Your task to perform on an android device: turn on location history Image 0: 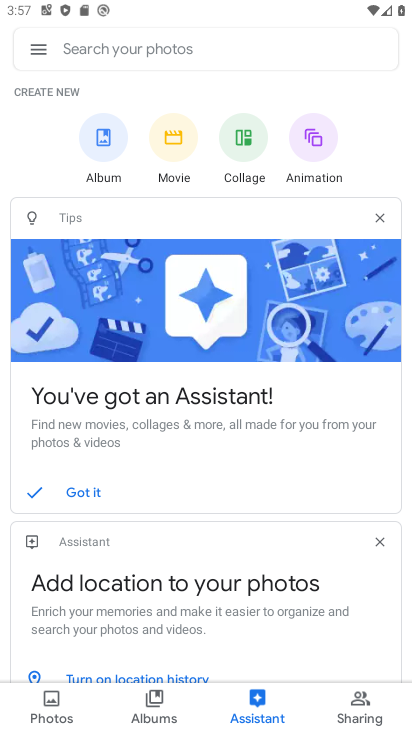
Step 0: press home button
Your task to perform on an android device: turn on location history Image 1: 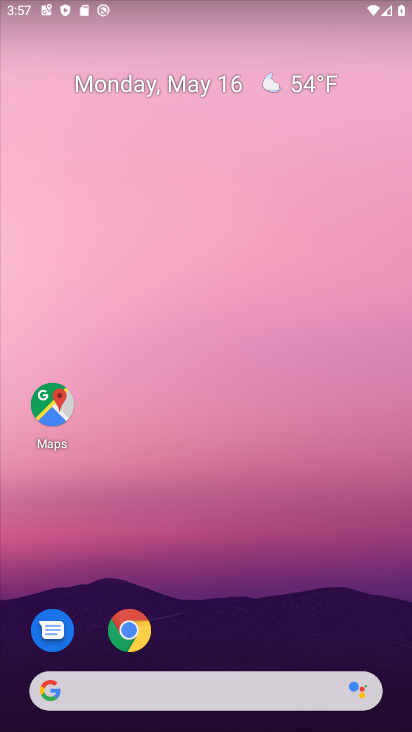
Step 1: click (56, 414)
Your task to perform on an android device: turn on location history Image 2: 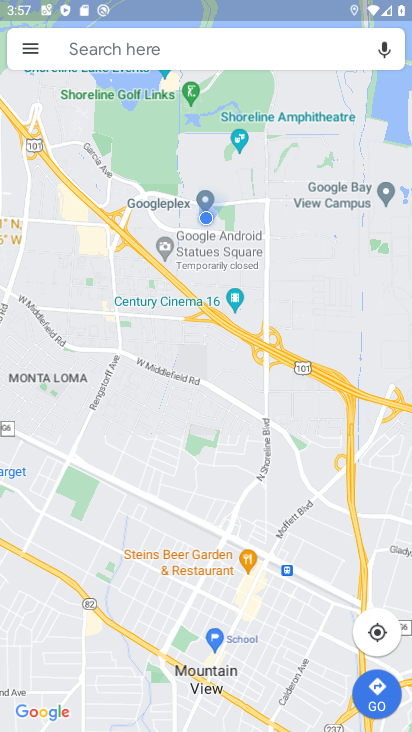
Step 2: click (34, 49)
Your task to perform on an android device: turn on location history Image 3: 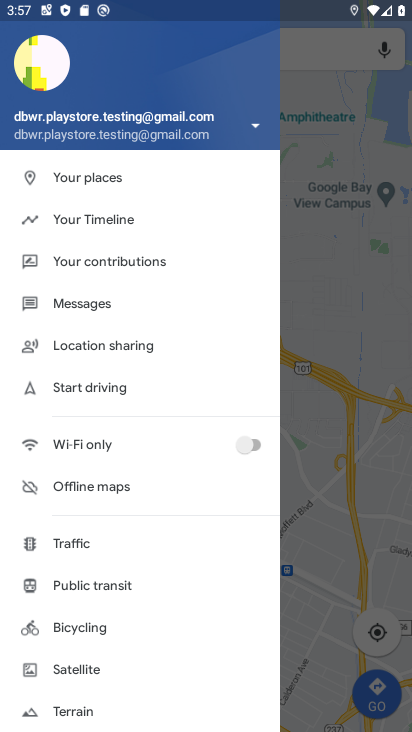
Step 3: click (128, 228)
Your task to perform on an android device: turn on location history Image 4: 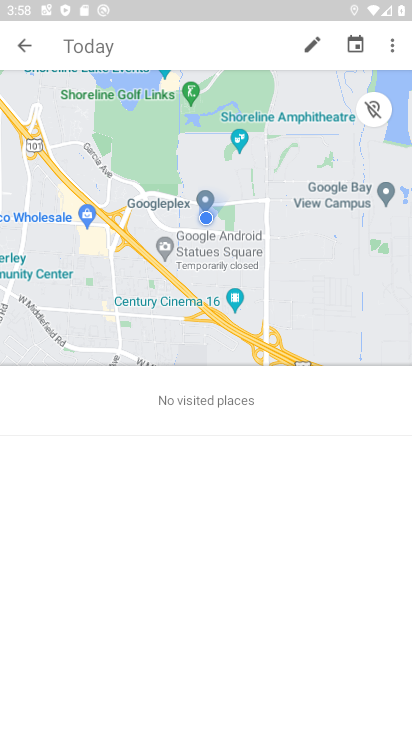
Step 4: click (396, 44)
Your task to perform on an android device: turn on location history Image 5: 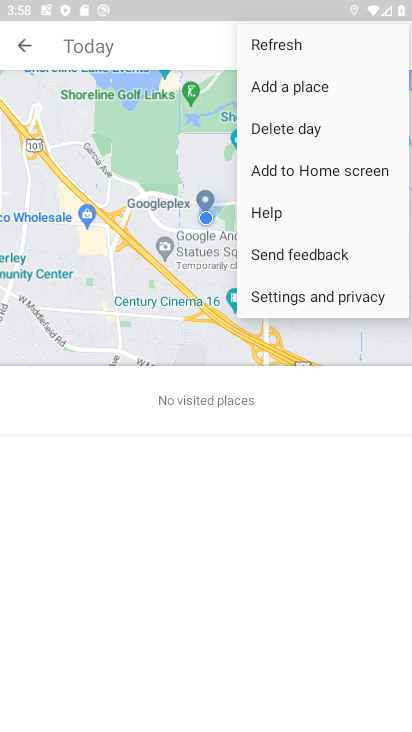
Step 5: click (359, 295)
Your task to perform on an android device: turn on location history Image 6: 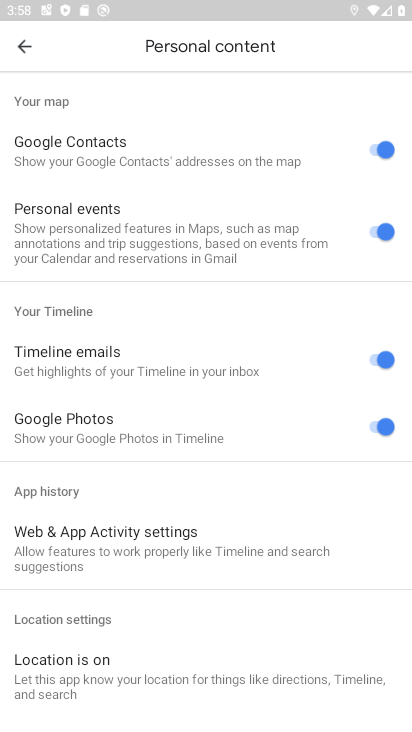
Step 6: drag from (281, 655) to (227, 298)
Your task to perform on an android device: turn on location history Image 7: 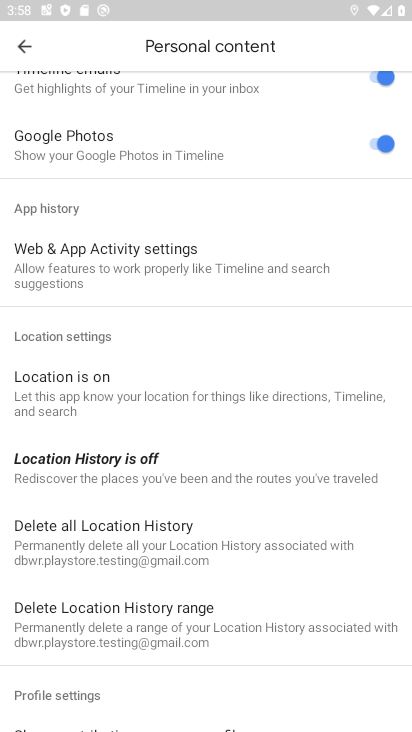
Step 7: click (267, 470)
Your task to perform on an android device: turn on location history Image 8: 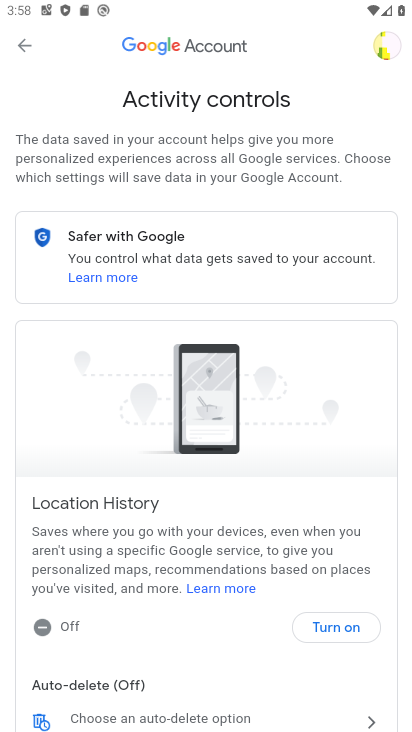
Step 8: click (323, 630)
Your task to perform on an android device: turn on location history Image 9: 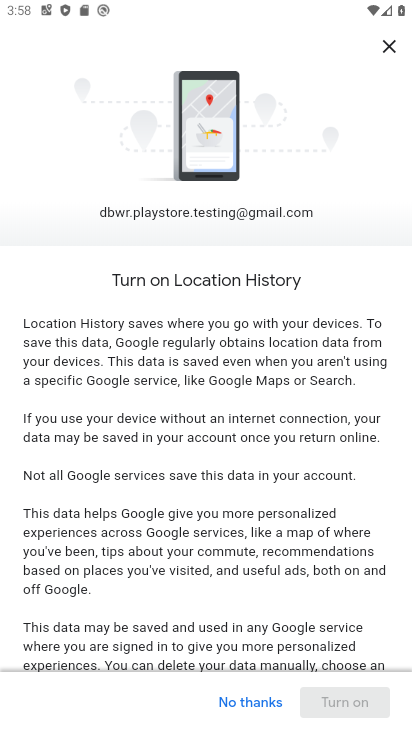
Step 9: drag from (333, 656) to (341, 68)
Your task to perform on an android device: turn on location history Image 10: 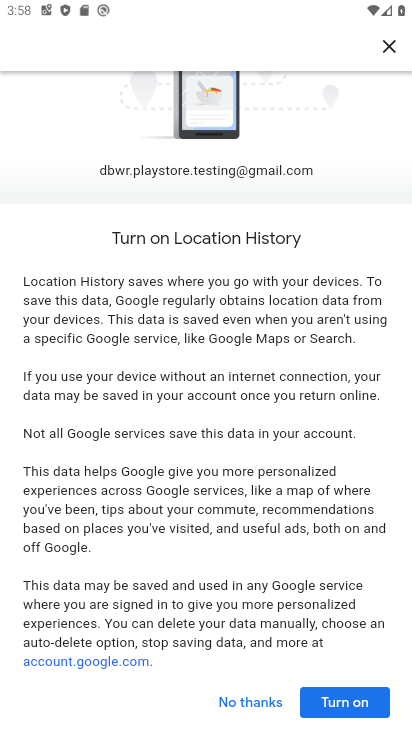
Step 10: click (350, 699)
Your task to perform on an android device: turn on location history Image 11: 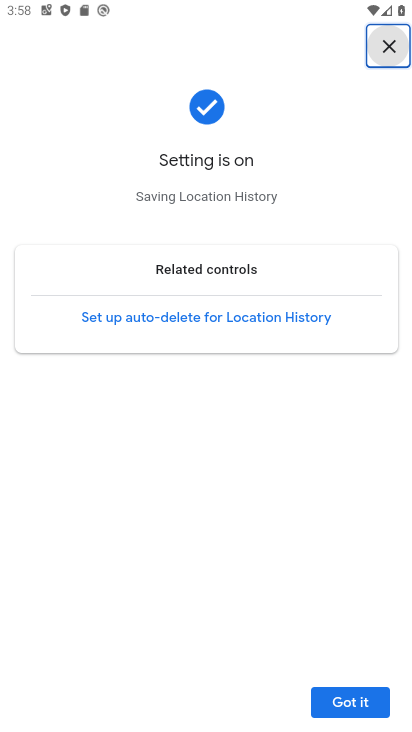
Step 11: click (350, 699)
Your task to perform on an android device: turn on location history Image 12: 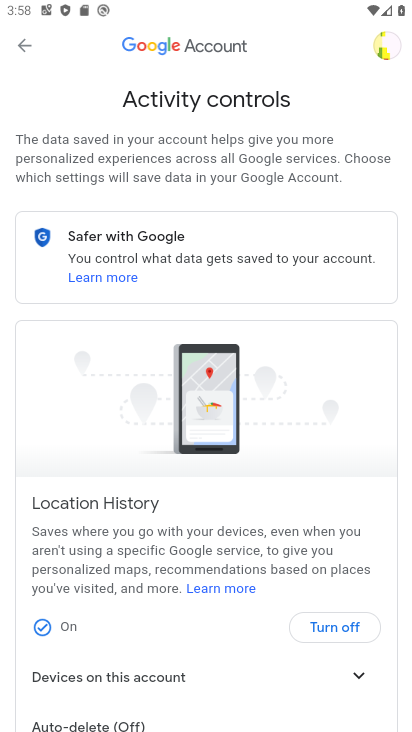
Step 12: task complete